Your task to perform on an android device: toggle show notifications on the lock screen Image 0: 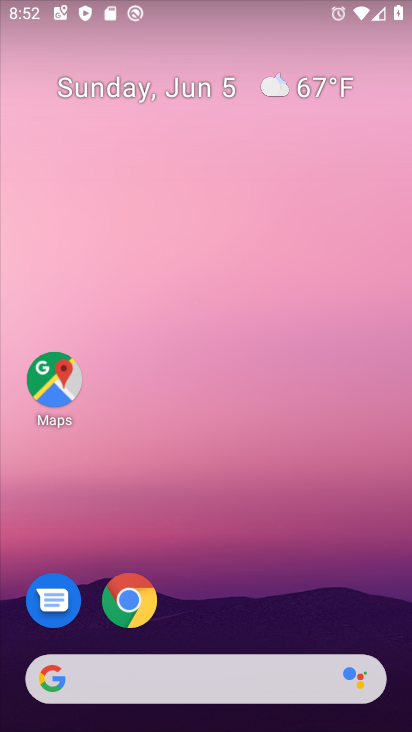
Step 0: drag from (365, 637) to (329, 51)
Your task to perform on an android device: toggle show notifications on the lock screen Image 1: 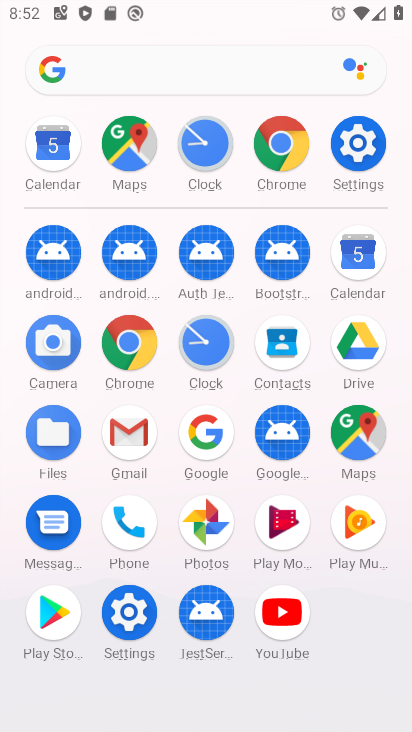
Step 1: click (371, 144)
Your task to perform on an android device: toggle show notifications on the lock screen Image 2: 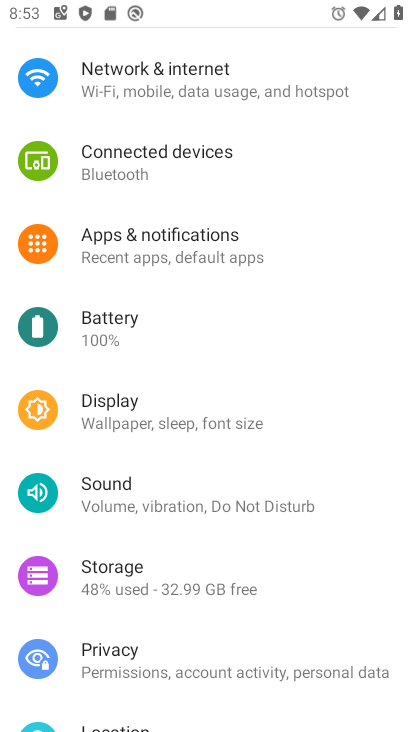
Step 2: click (228, 244)
Your task to perform on an android device: toggle show notifications on the lock screen Image 3: 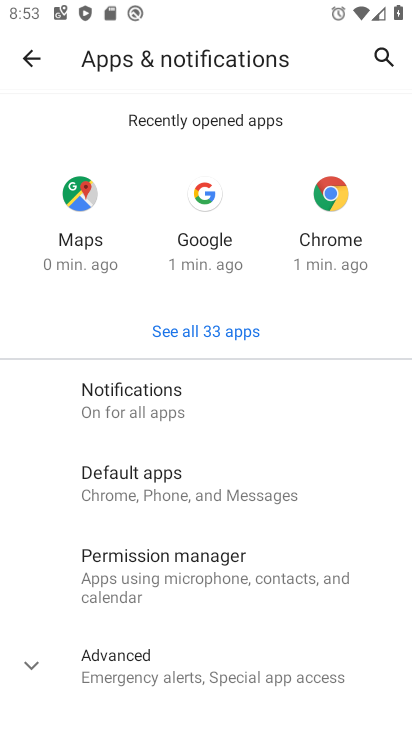
Step 3: click (160, 388)
Your task to perform on an android device: toggle show notifications on the lock screen Image 4: 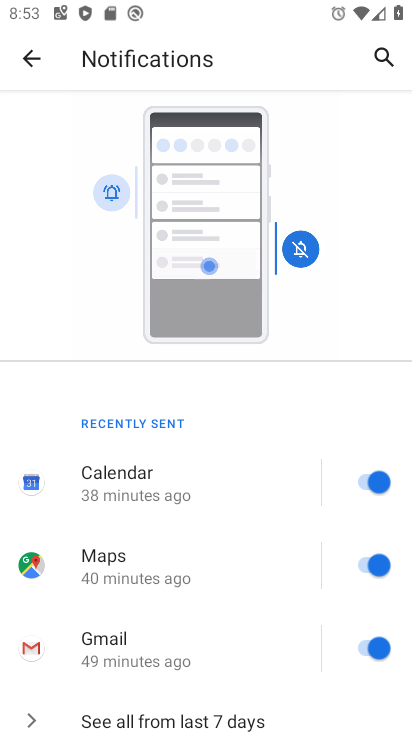
Step 4: drag from (200, 675) to (225, 54)
Your task to perform on an android device: toggle show notifications on the lock screen Image 5: 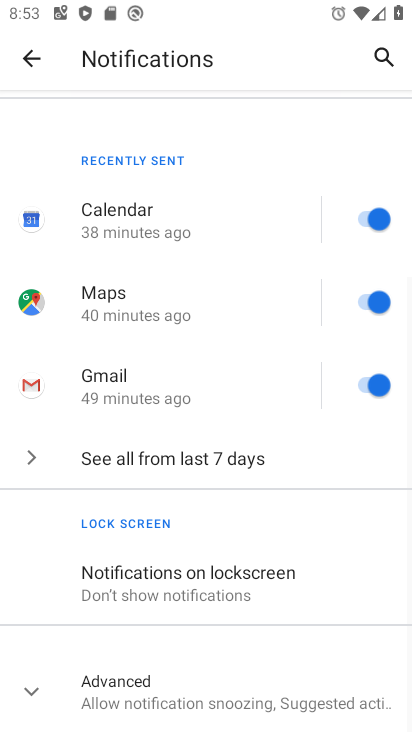
Step 5: click (196, 587)
Your task to perform on an android device: toggle show notifications on the lock screen Image 6: 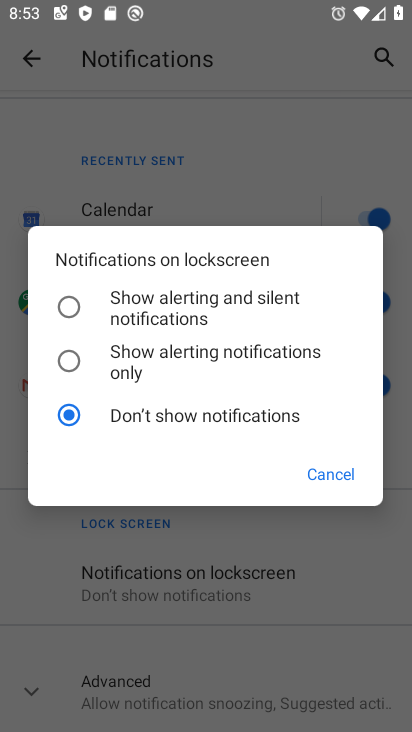
Step 6: click (67, 313)
Your task to perform on an android device: toggle show notifications on the lock screen Image 7: 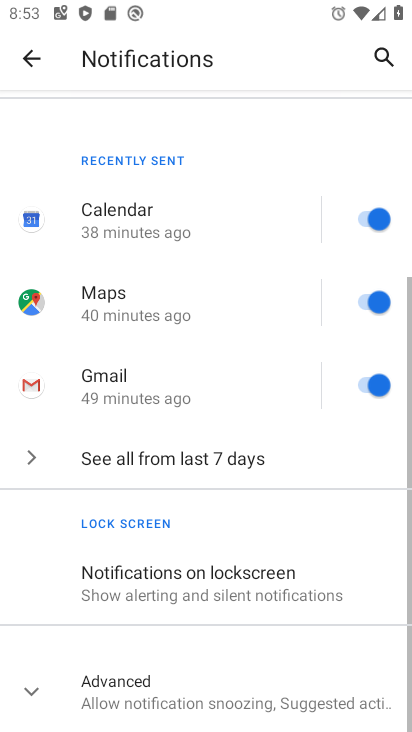
Step 7: task complete